Your task to perform on an android device: turn off wifi Image 0: 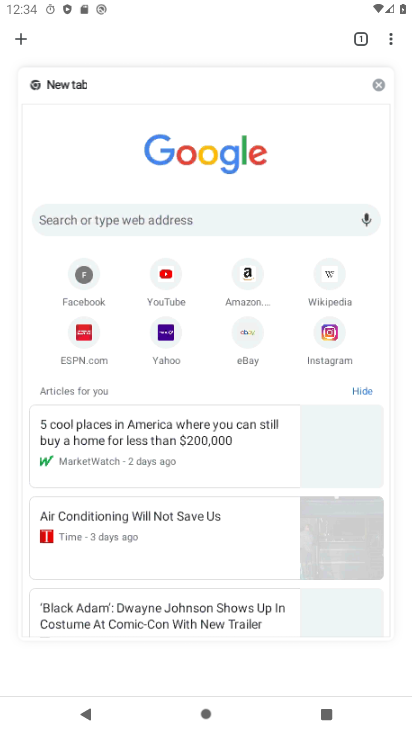
Step 0: press home button
Your task to perform on an android device: turn off wifi Image 1: 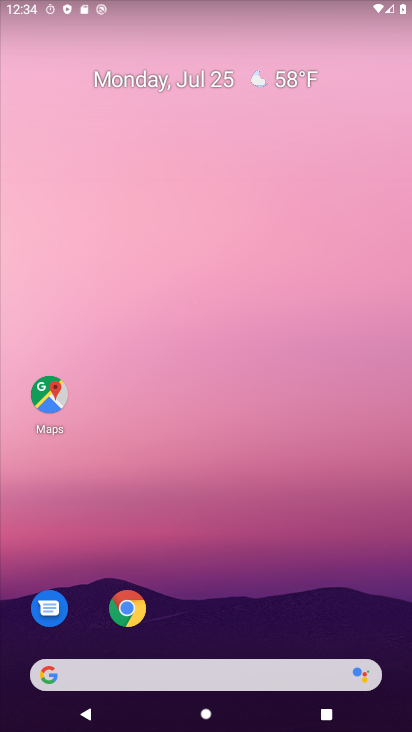
Step 1: drag from (273, 576) to (239, 26)
Your task to perform on an android device: turn off wifi Image 2: 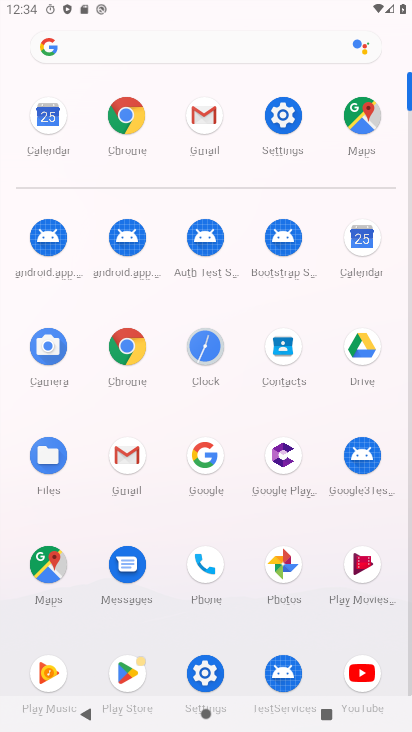
Step 2: click (289, 112)
Your task to perform on an android device: turn off wifi Image 3: 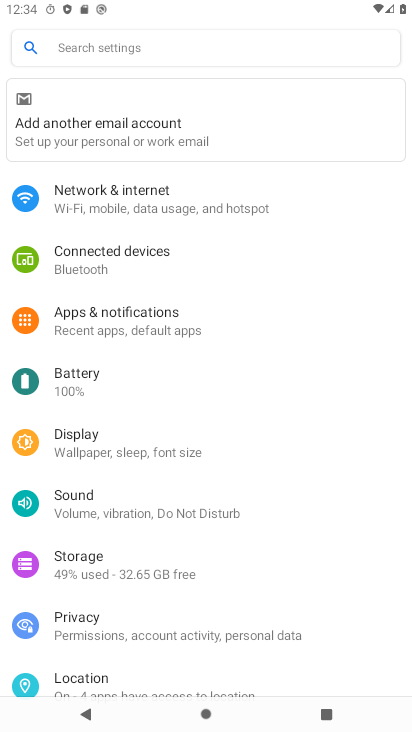
Step 3: click (161, 202)
Your task to perform on an android device: turn off wifi Image 4: 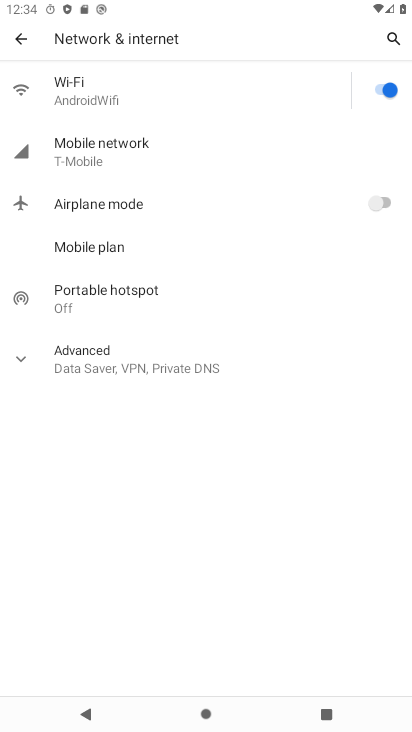
Step 4: click (382, 89)
Your task to perform on an android device: turn off wifi Image 5: 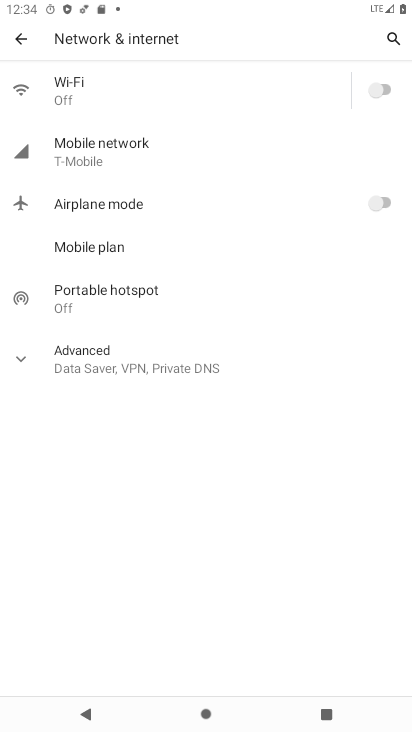
Step 5: task complete